Your task to perform on an android device: Show me the alarms in the clock app Image 0: 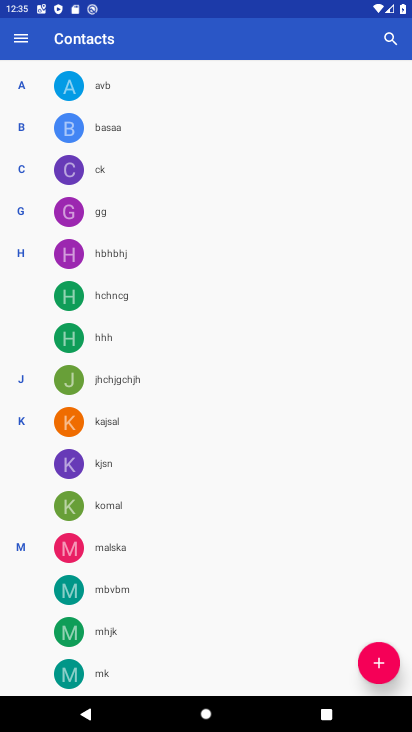
Step 0: press home button
Your task to perform on an android device: Show me the alarms in the clock app Image 1: 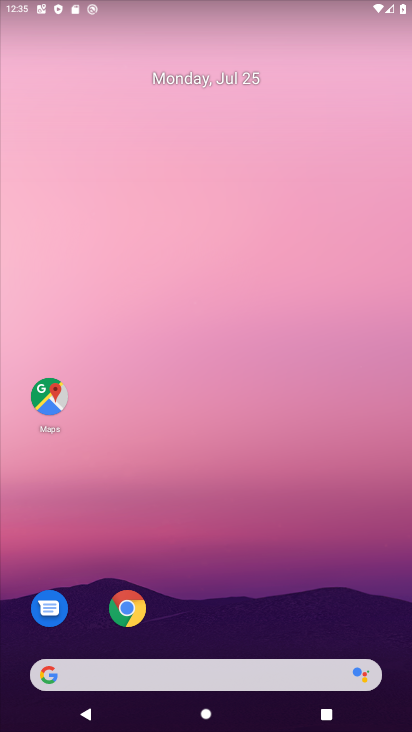
Step 1: drag from (311, 632) to (271, 6)
Your task to perform on an android device: Show me the alarms in the clock app Image 2: 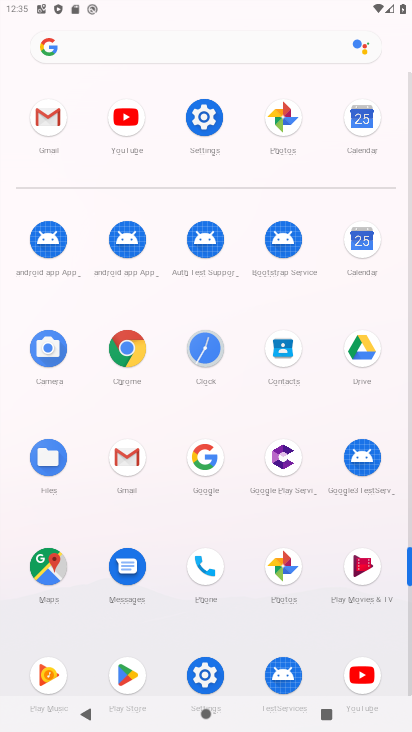
Step 2: click (204, 346)
Your task to perform on an android device: Show me the alarms in the clock app Image 3: 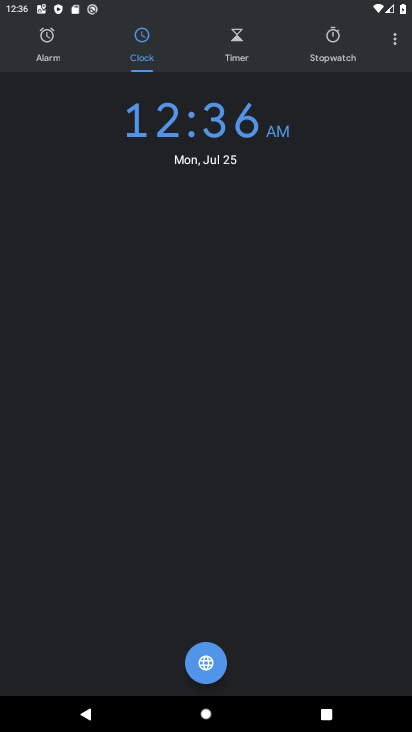
Step 3: click (51, 47)
Your task to perform on an android device: Show me the alarms in the clock app Image 4: 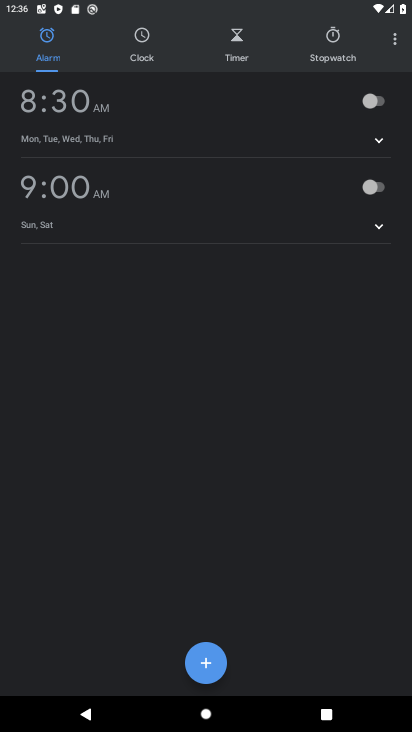
Step 4: task complete